Your task to perform on an android device: Empty the shopping cart on amazon.com. Search for corsair k70 on amazon.com, select the first entry, add it to the cart, then select checkout. Image 0: 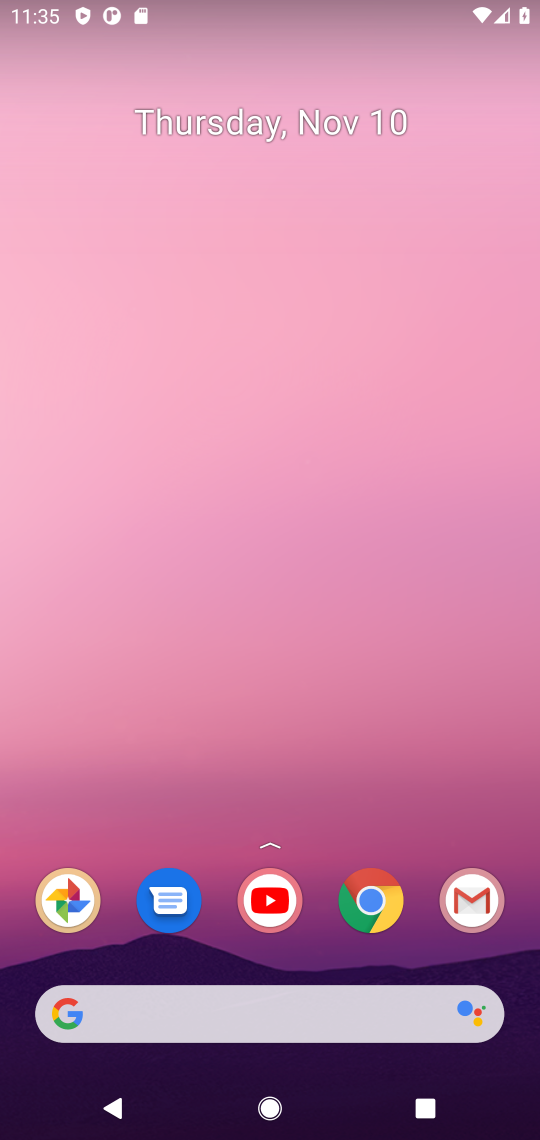
Step 0: click (374, 894)
Your task to perform on an android device: Empty the shopping cart on amazon.com. Search for corsair k70 on amazon.com, select the first entry, add it to the cart, then select checkout. Image 1: 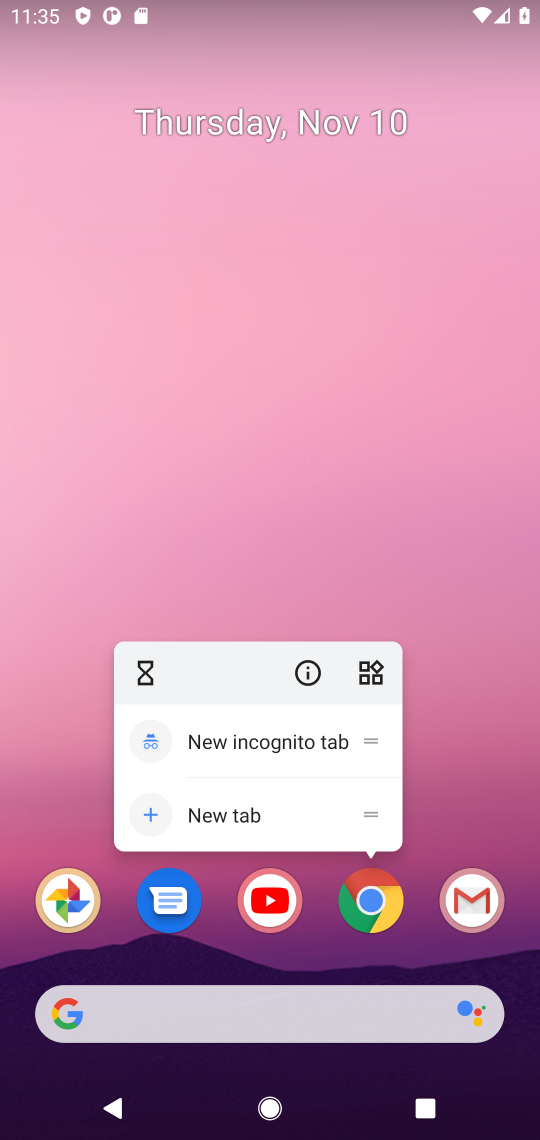
Step 1: click (374, 899)
Your task to perform on an android device: Empty the shopping cart on amazon.com. Search for corsair k70 on amazon.com, select the first entry, add it to the cart, then select checkout. Image 2: 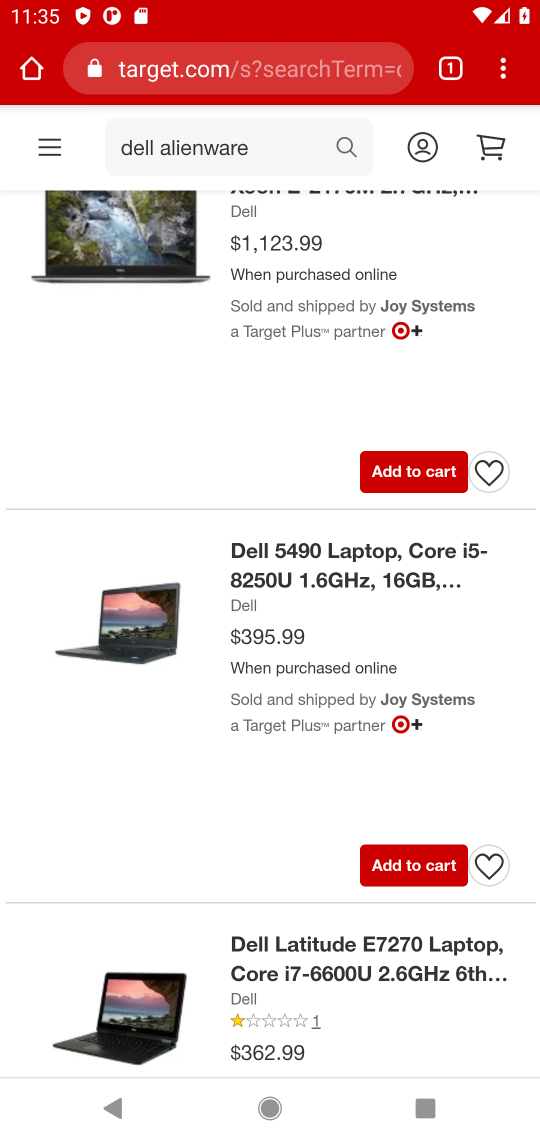
Step 2: click (260, 73)
Your task to perform on an android device: Empty the shopping cart on amazon.com. Search for corsair k70 on amazon.com, select the first entry, add it to the cart, then select checkout. Image 3: 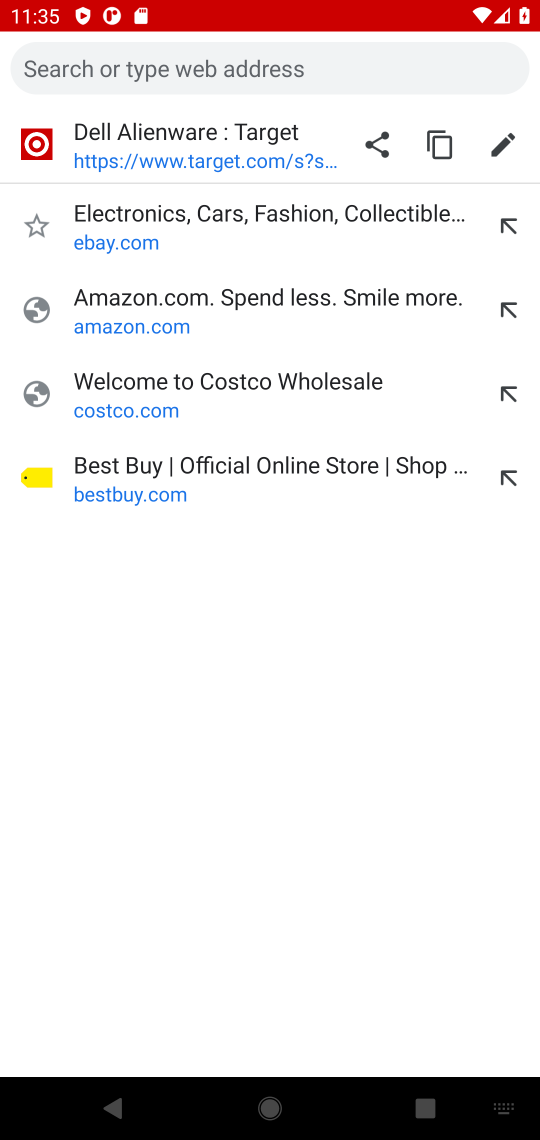
Step 3: click (106, 327)
Your task to perform on an android device: Empty the shopping cart on amazon.com. Search for corsair k70 on amazon.com, select the first entry, add it to the cart, then select checkout. Image 4: 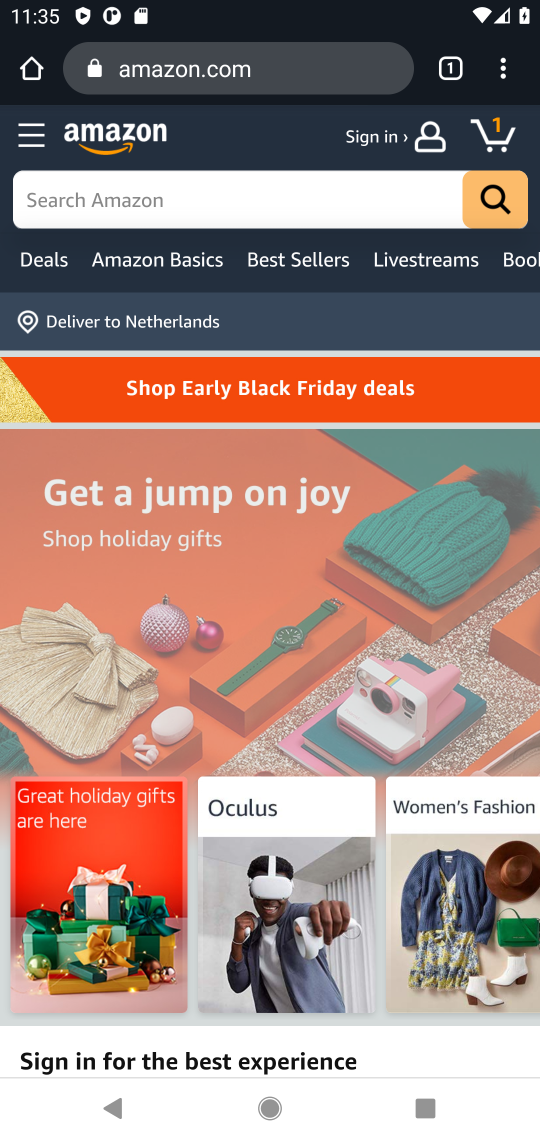
Step 4: click (121, 198)
Your task to perform on an android device: Empty the shopping cart on amazon.com. Search for corsair k70 on amazon.com, select the first entry, add it to the cart, then select checkout. Image 5: 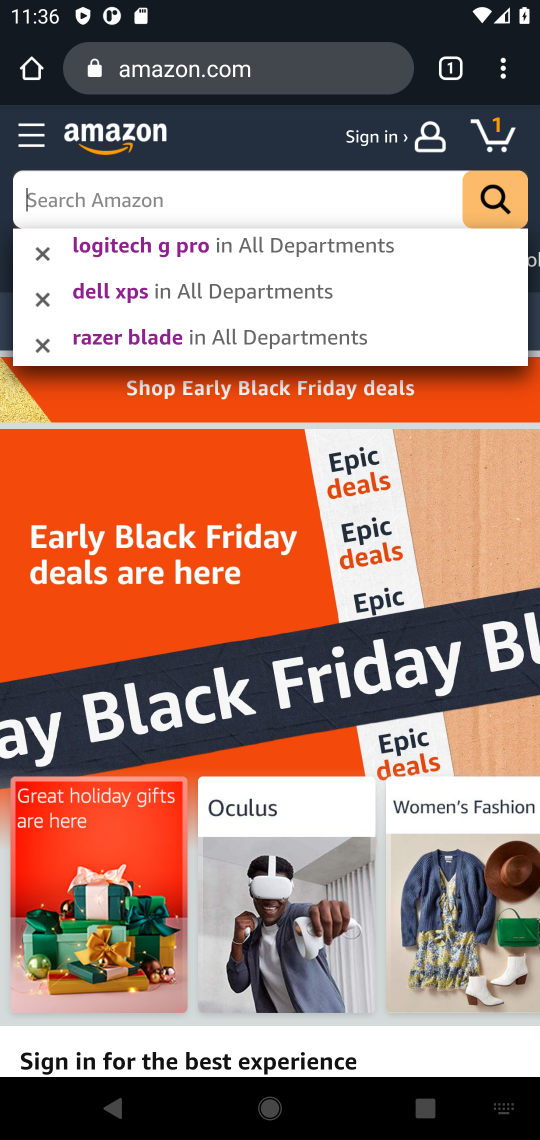
Step 5: type "corsair k70"
Your task to perform on an android device: Empty the shopping cart on amazon.com. Search for corsair k70 on amazon.com, select the first entry, add it to the cart, then select checkout. Image 6: 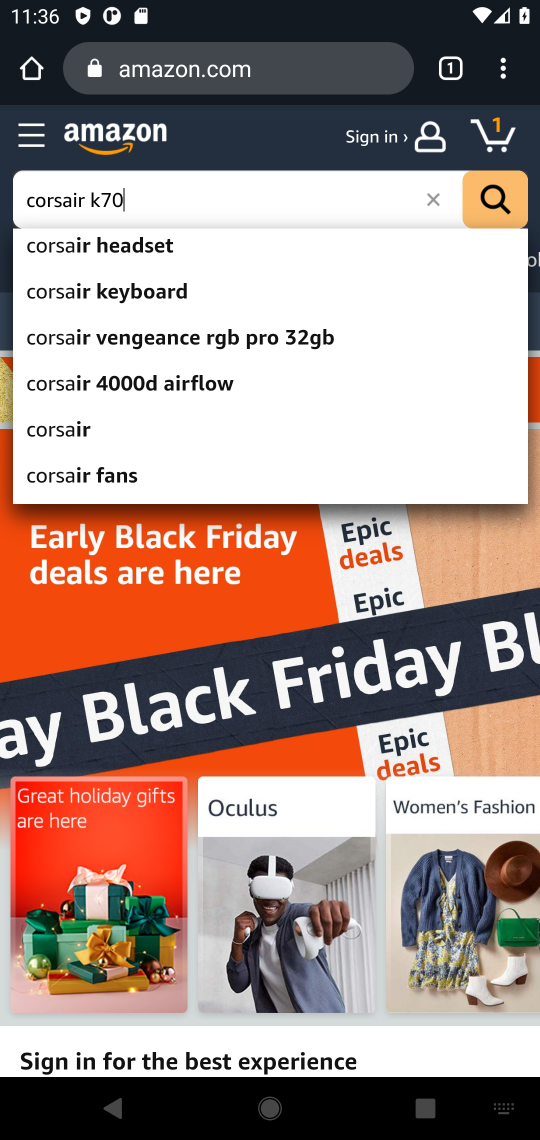
Step 6: press enter
Your task to perform on an android device: Empty the shopping cart on amazon.com. Search for corsair k70 on amazon.com, select the first entry, add it to the cart, then select checkout. Image 7: 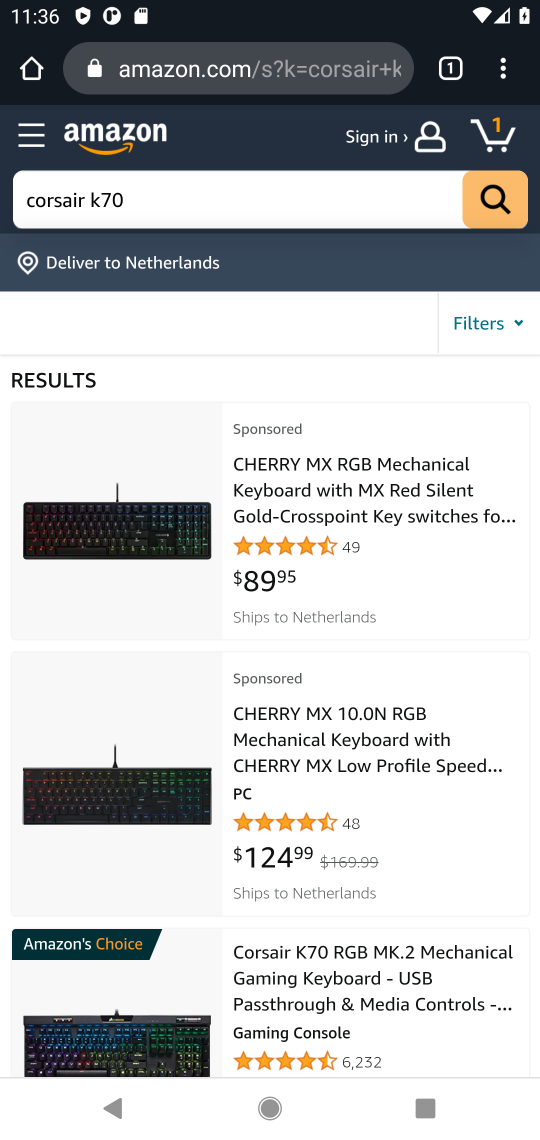
Step 7: task complete